Your task to perform on an android device: uninstall "Roku - Official Remote Control" Image 0: 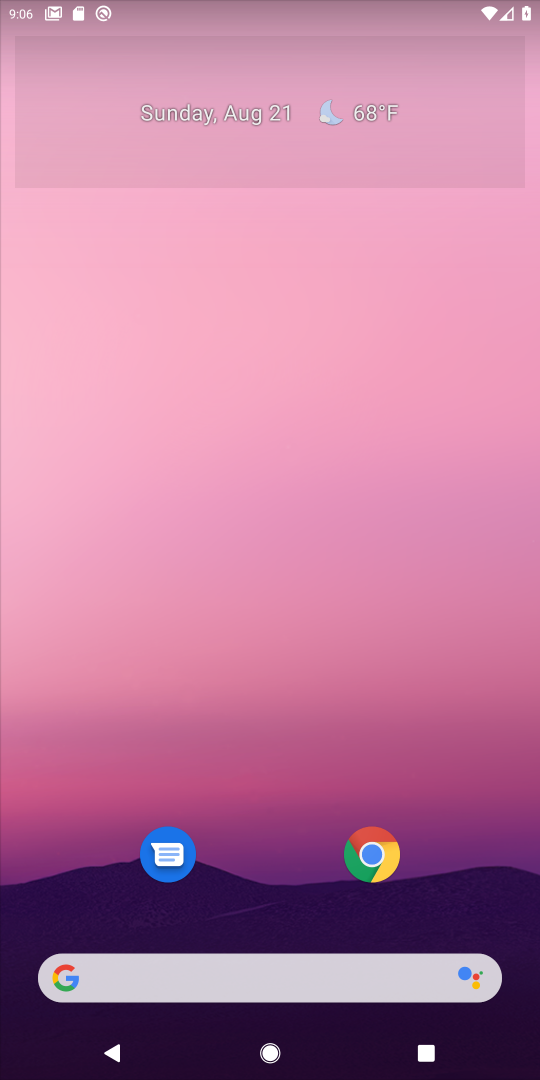
Step 0: drag from (263, 124) to (265, 7)
Your task to perform on an android device: uninstall "Roku - Official Remote Control" Image 1: 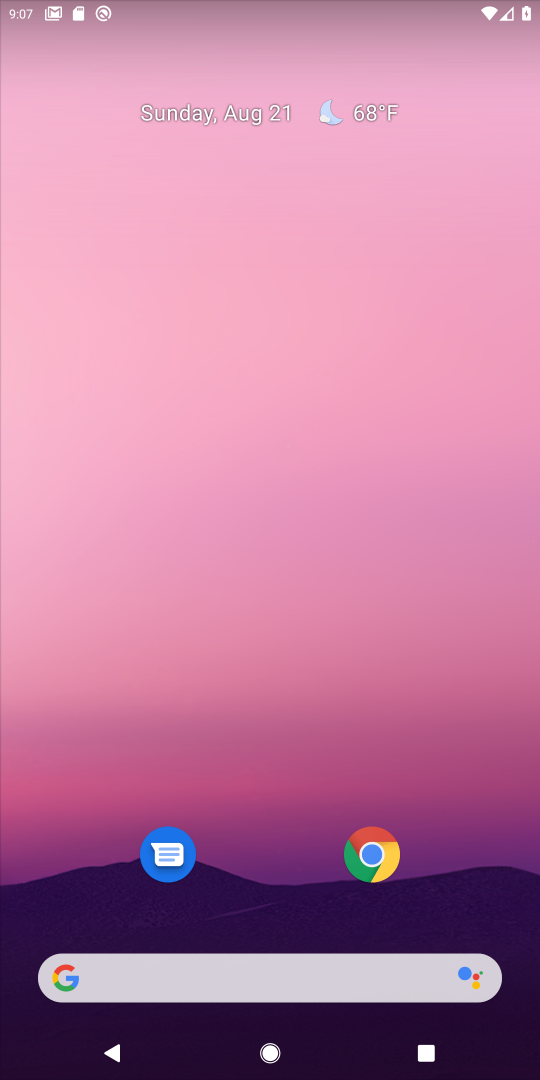
Step 1: drag from (331, 939) to (459, 242)
Your task to perform on an android device: uninstall "Roku - Official Remote Control" Image 2: 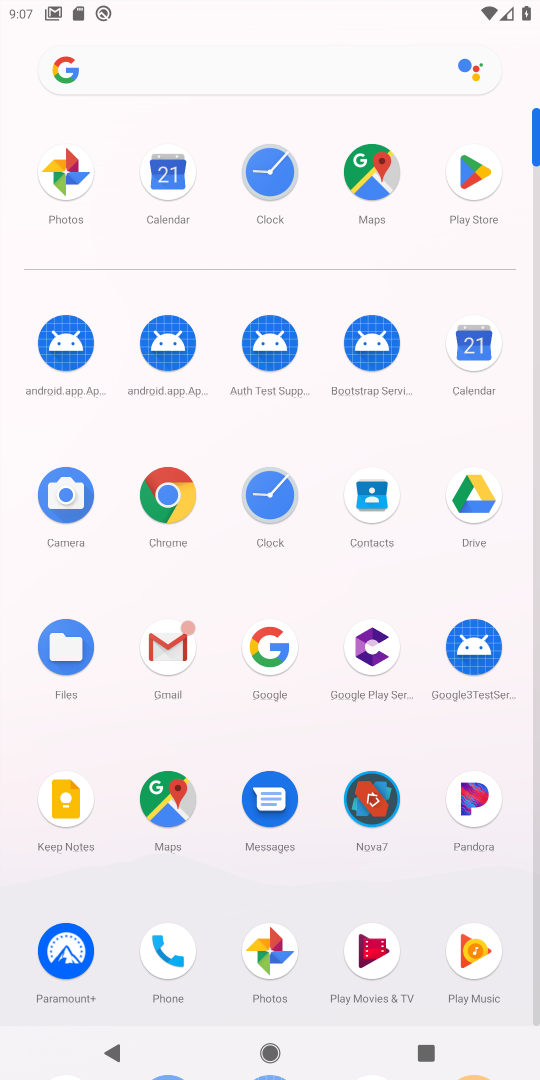
Step 2: click (466, 203)
Your task to perform on an android device: uninstall "Roku - Official Remote Control" Image 3: 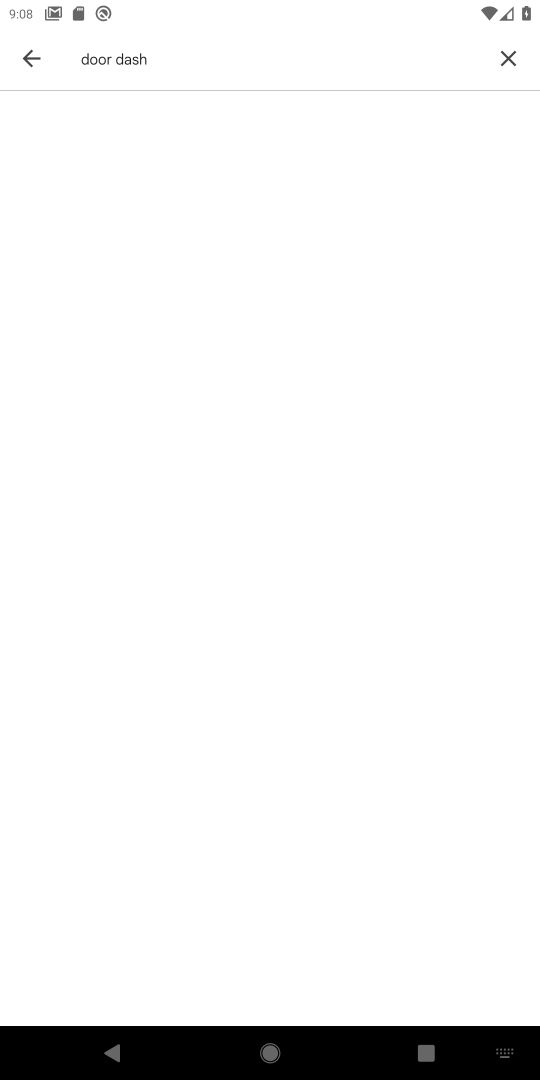
Step 3: click (494, 60)
Your task to perform on an android device: uninstall "Roku - Official Remote Control" Image 4: 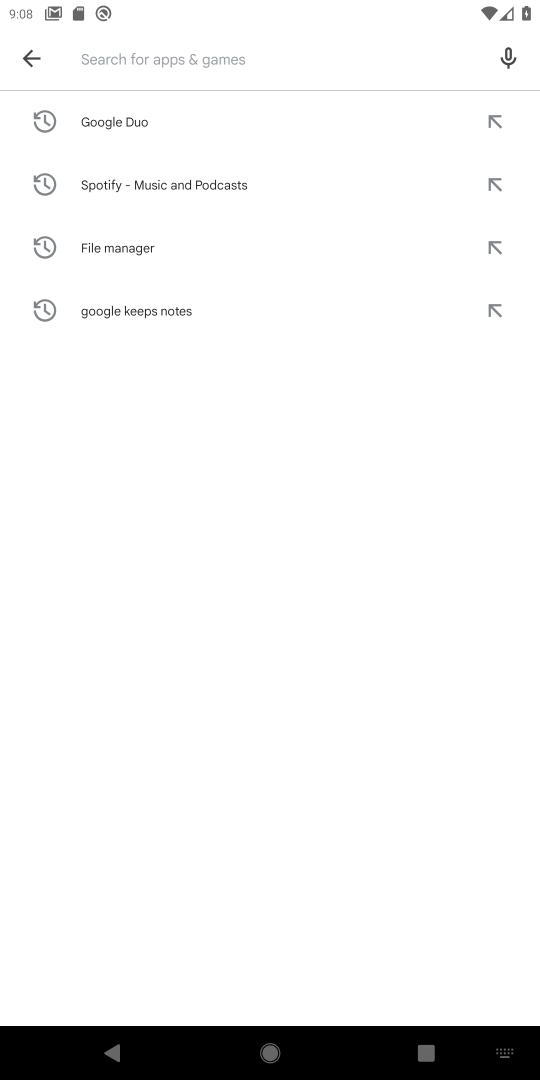
Step 4: type "roku"
Your task to perform on an android device: uninstall "Roku - Official Remote Control" Image 5: 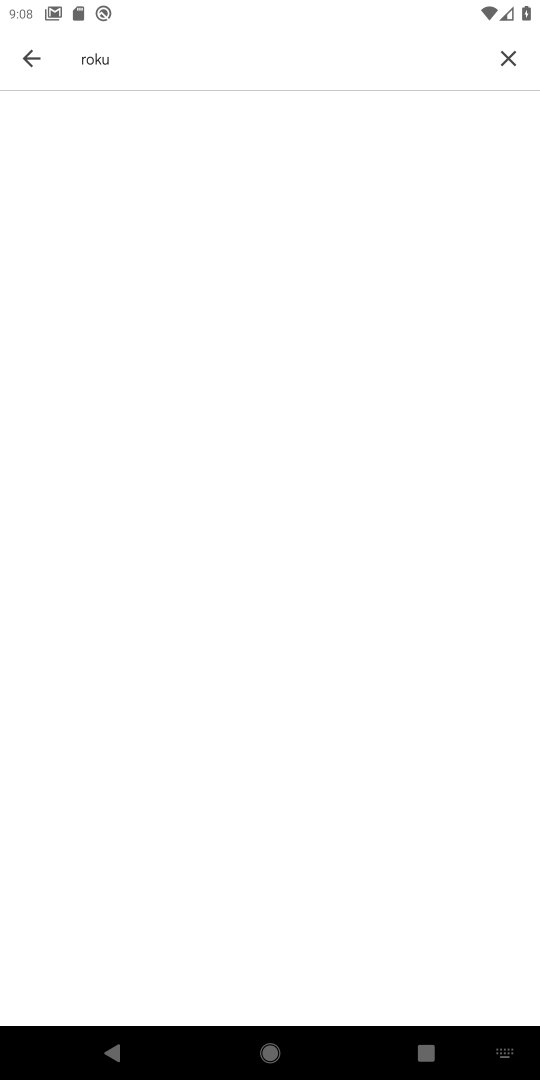
Step 5: task complete